Your task to perform on an android device: add a label to a message in the gmail app Image 0: 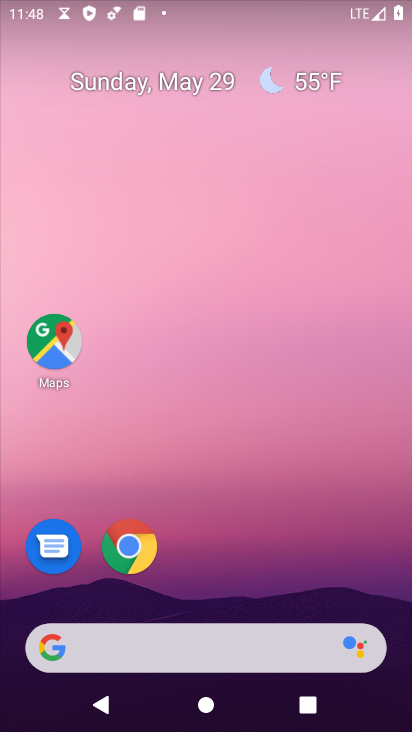
Step 0: press home button
Your task to perform on an android device: add a label to a message in the gmail app Image 1: 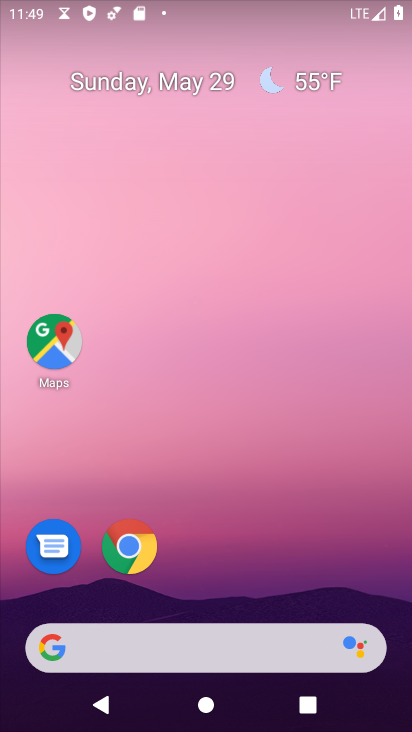
Step 1: drag from (177, 649) to (291, 85)
Your task to perform on an android device: add a label to a message in the gmail app Image 2: 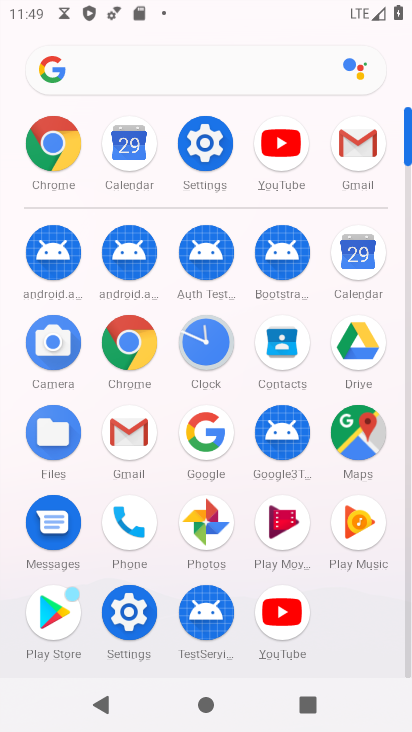
Step 2: click (354, 156)
Your task to perform on an android device: add a label to a message in the gmail app Image 3: 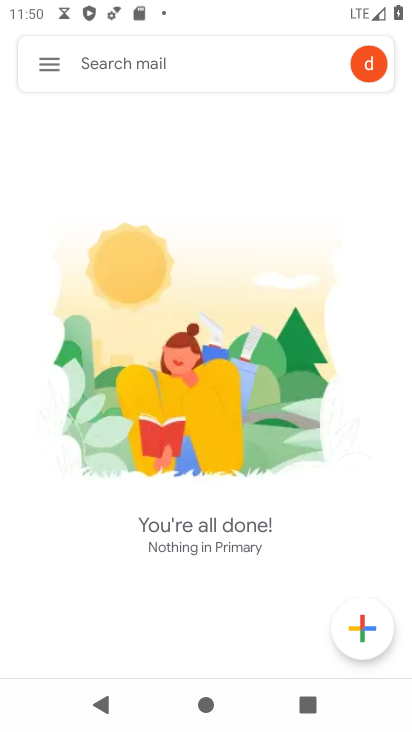
Step 3: task complete